Your task to perform on an android device: change notification settings in the gmail app Image 0: 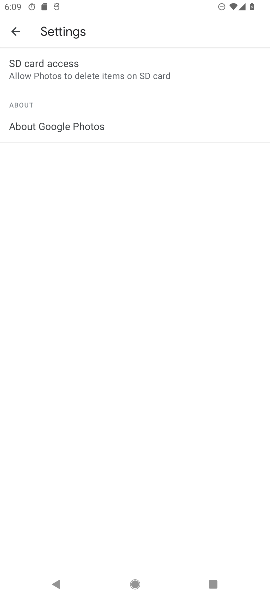
Step 0: click (16, 32)
Your task to perform on an android device: change notification settings in the gmail app Image 1: 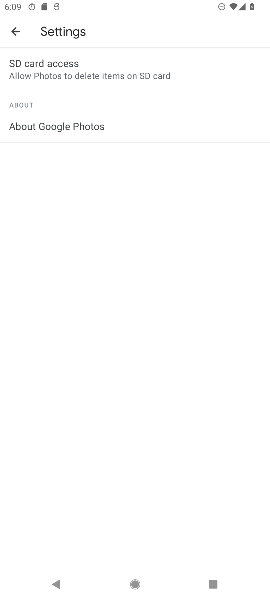
Step 1: click (14, 35)
Your task to perform on an android device: change notification settings in the gmail app Image 2: 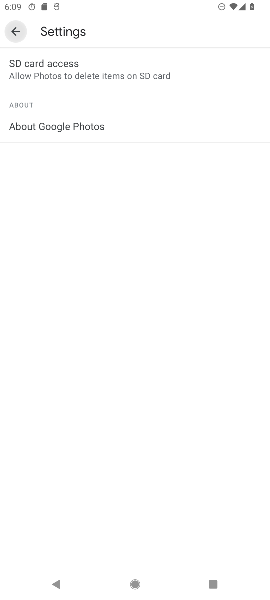
Step 2: click (36, 69)
Your task to perform on an android device: change notification settings in the gmail app Image 3: 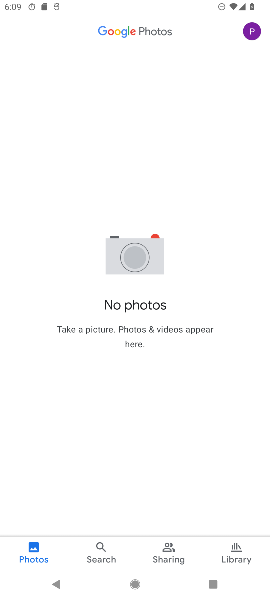
Step 3: press back button
Your task to perform on an android device: change notification settings in the gmail app Image 4: 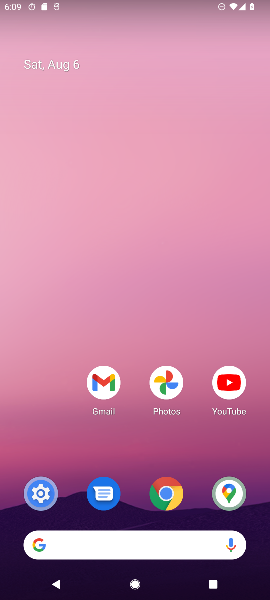
Step 4: drag from (148, 500) to (53, 143)
Your task to perform on an android device: change notification settings in the gmail app Image 5: 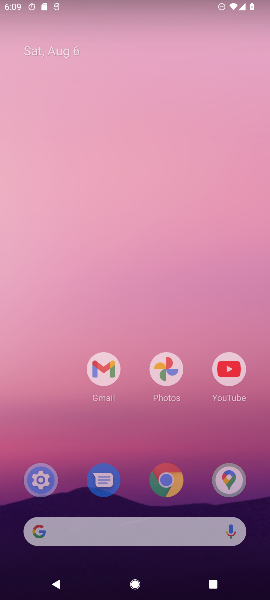
Step 5: drag from (130, 405) to (92, 77)
Your task to perform on an android device: change notification settings in the gmail app Image 6: 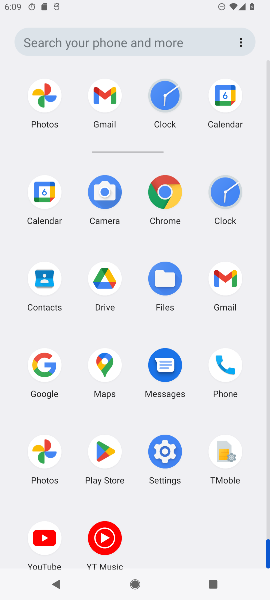
Step 6: drag from (140, 381) to (131, 137)
Your task to perform on an android device: change notification settings in the gmail app Image 7: 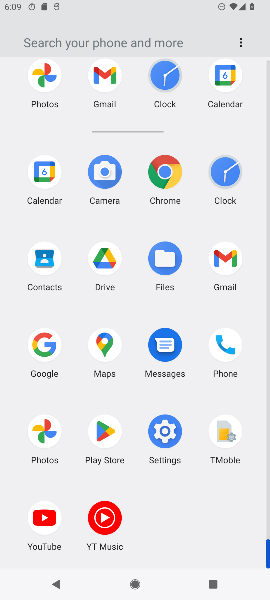
Step 7: click (231, 255)
Your task to perform on an android device: change notification settings in the gmail app Image 8: 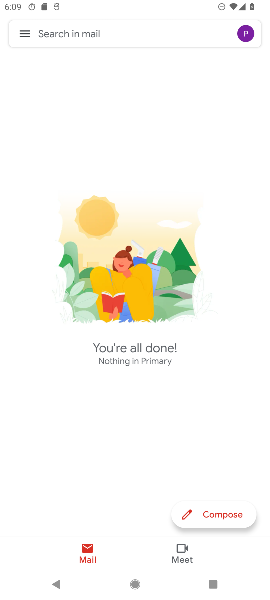
Step 8: click (18, 52)
Your task to perform on an android device: change notification settings in the gmail app Image 9: 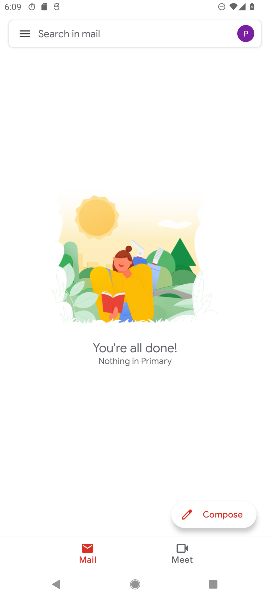
Step 9: click (23, 22)
Your task to perform on an android device: change notification settings in the gmail app Image 10: 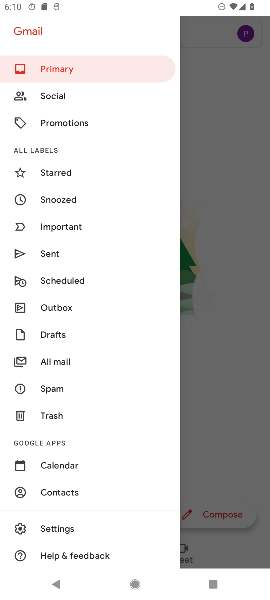
Step 10: click (247, 382)
Your task to perform on an android device: change notification settings in the gmail app Image 11: 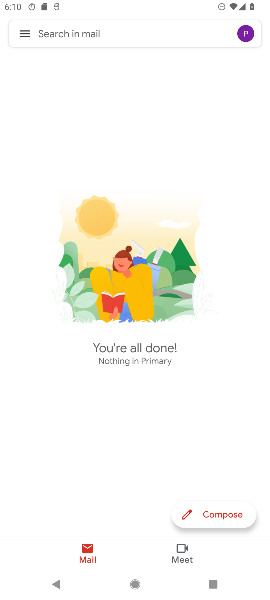
Step 11: click (216, 185)
Your task to perform on an android device: change notification settings in the gmail app Image 12: 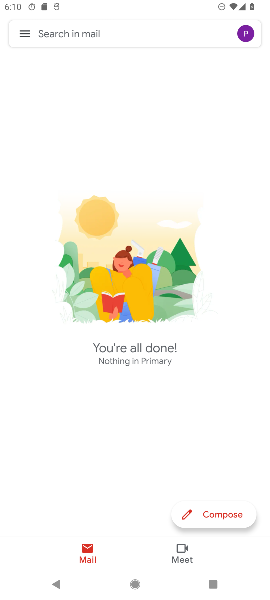
Step 12: click (22, 38)
Your task to perform on an android device: change notification settings in the gmail app Image 13: 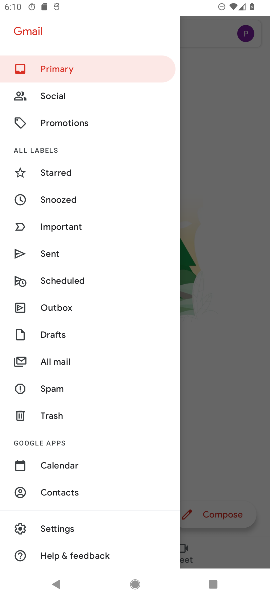
Step 13: click (209, 336)
Your task to perform on an android device: change notification settings in the gmail app Image 14: 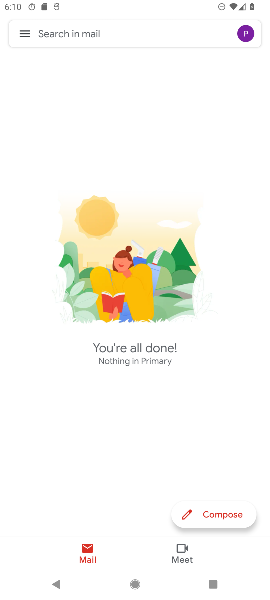
Step 14: click (23, 35)
Your task to perform on an android device: change notification settings in the gmail app Image 15: 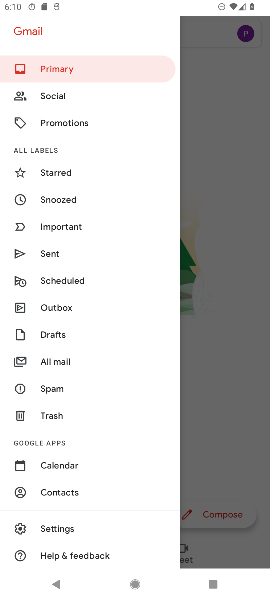
Step 15: click (55, 522)
Your task to perform on an android device: change notification settings in the gmail app Image 16: 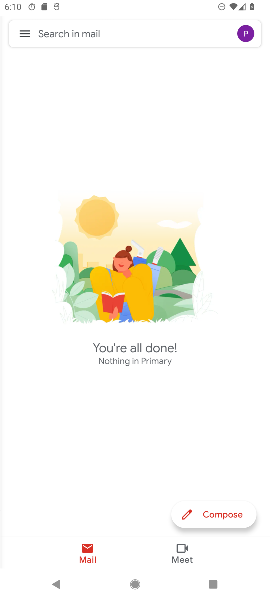
Step 16: click (52, 525)
Your task to perform on an android device: change notification settings in the gmail app Image 17: 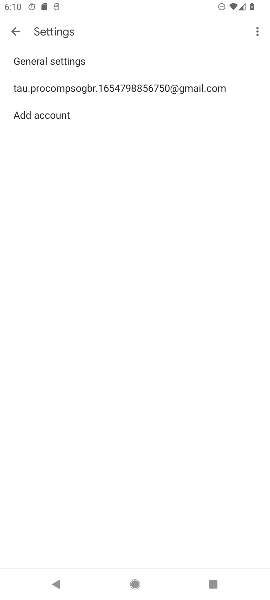
Step 17: click (74, 86)
Your task to perform on an android device: change notification settings in the gmail app Image 18: 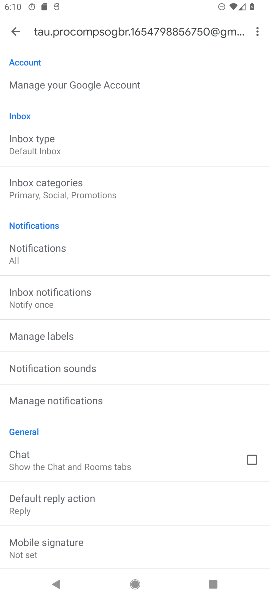
Step 18: click (29, 249)
Your task to perform on an android device: change notification settings in the gmail app Image 19: 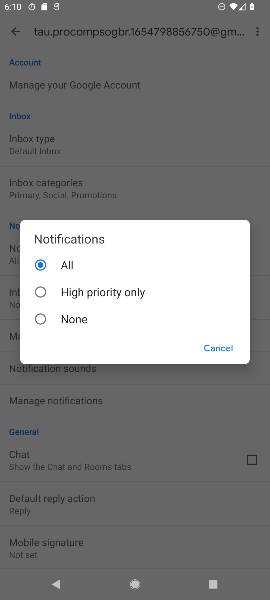
Step 19: click (36, 289)
Your task to perform on an android device: change notification settings in the gmail app Image 20: 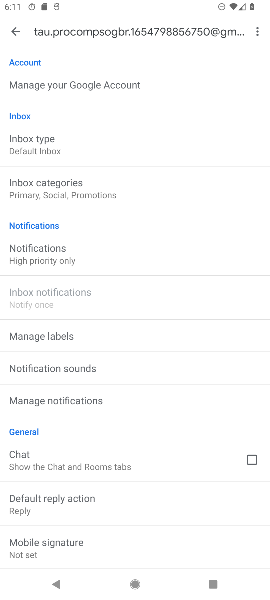
Step 20: task complete